Your task to perform on an android device: Go to eBay Image 0: 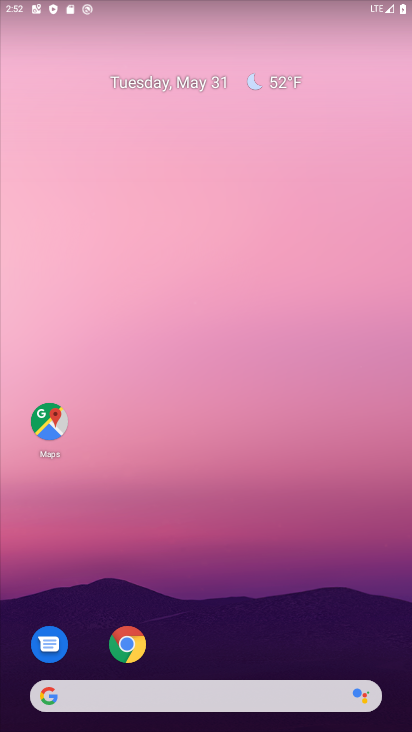
Step 0: click (122, 656)
Your task to perform on an android device: Go to eBay Image 1: 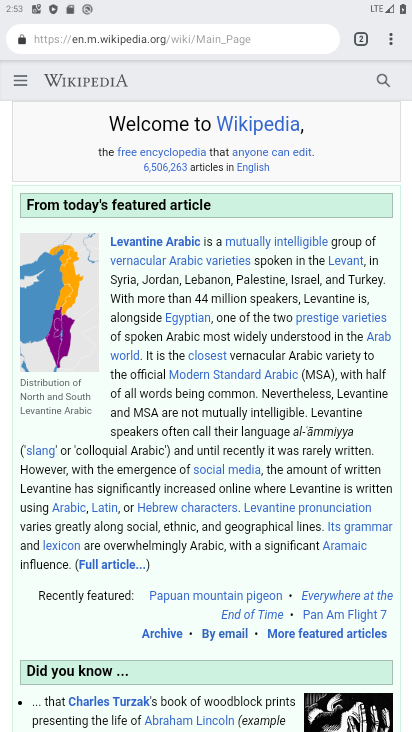
Step 1: click (369, 42)
Your task to perform on an android device: Go to eBay Image 2: 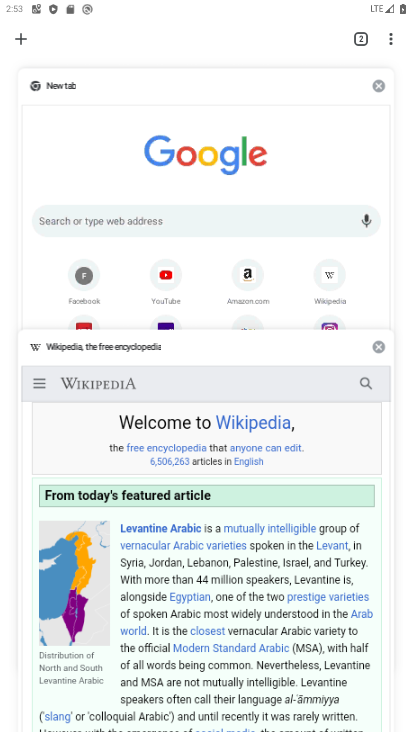
Step 2: click (374, 82)
Your task to perform on an android device: Go to eBay Image 3: 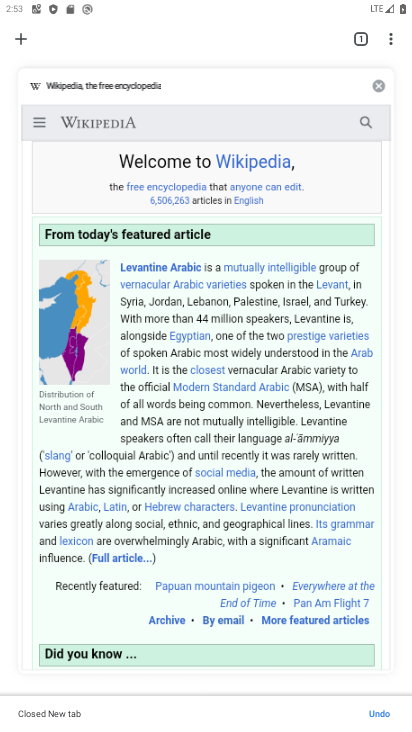
Step 3: click (378, 91)
Your task to perform on an android device: Go to eBay Image 4: 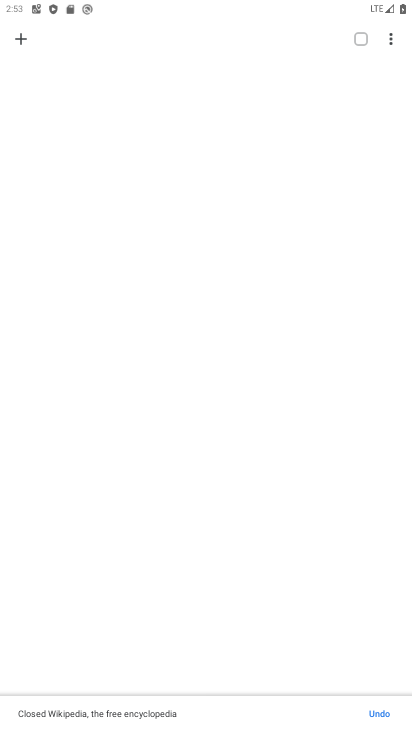
Step 4: click (19, 39)
Your task to perform on an android device: Go to eBay Image 5: 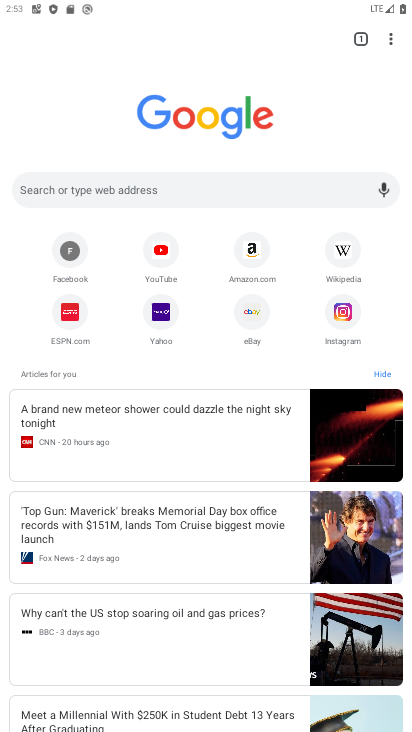
Step 5: click (248, 312)
Your task to perform on an android device: Go to eBay Image 6: 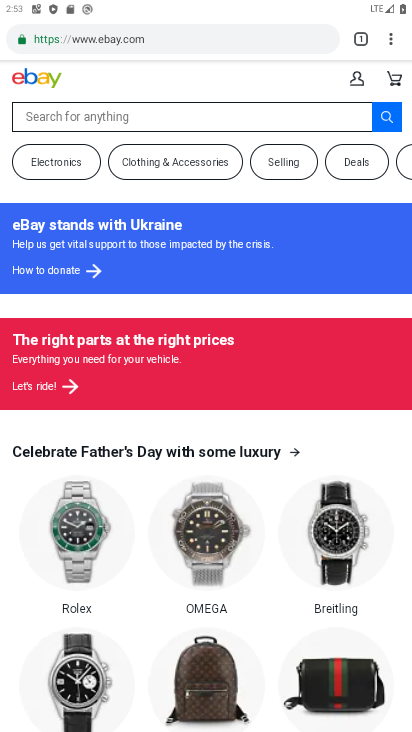
Step 6: task complete